Your task to perform on an android device: Clear the cart on newegg.com. Add "logitech g910" to the cart on newegg.com Image 0: 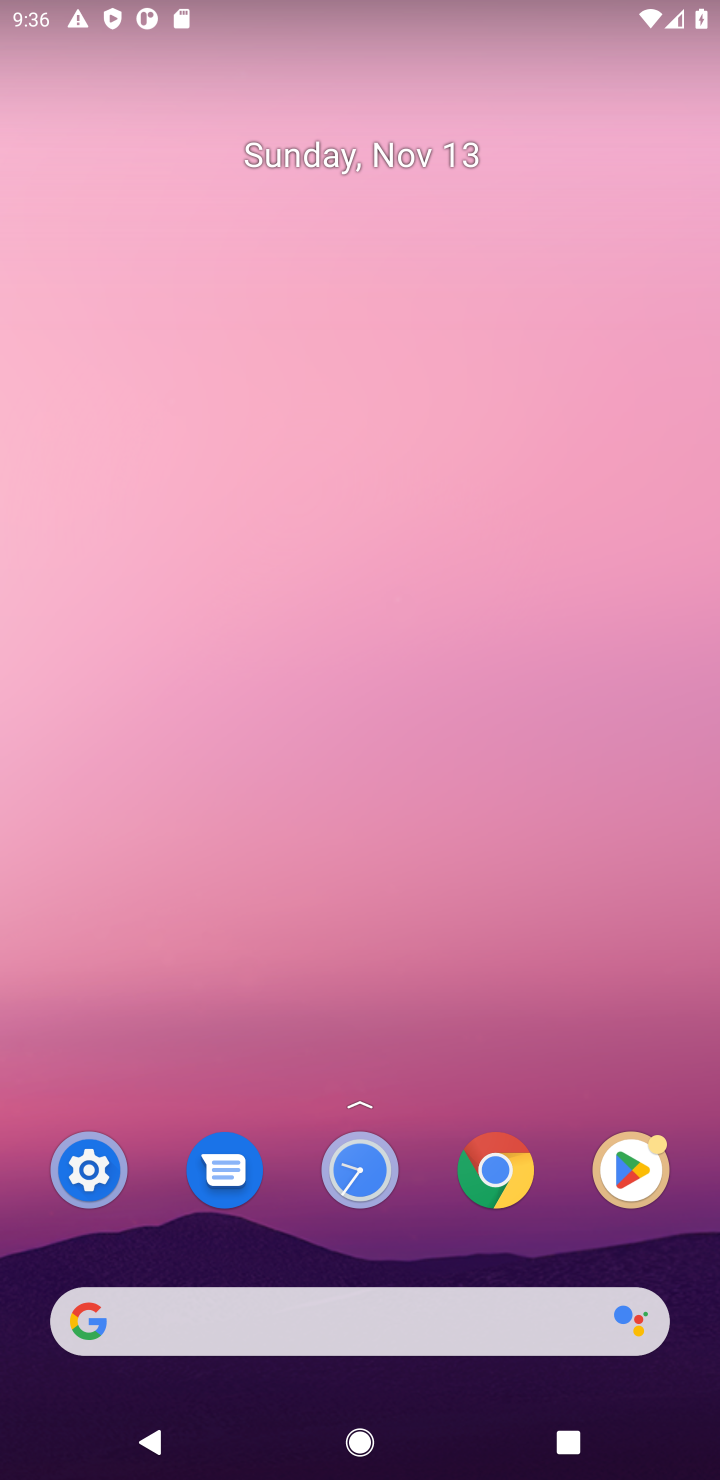
Step 0: task complete